Your task to perform on an android device: Open settings Image 0: 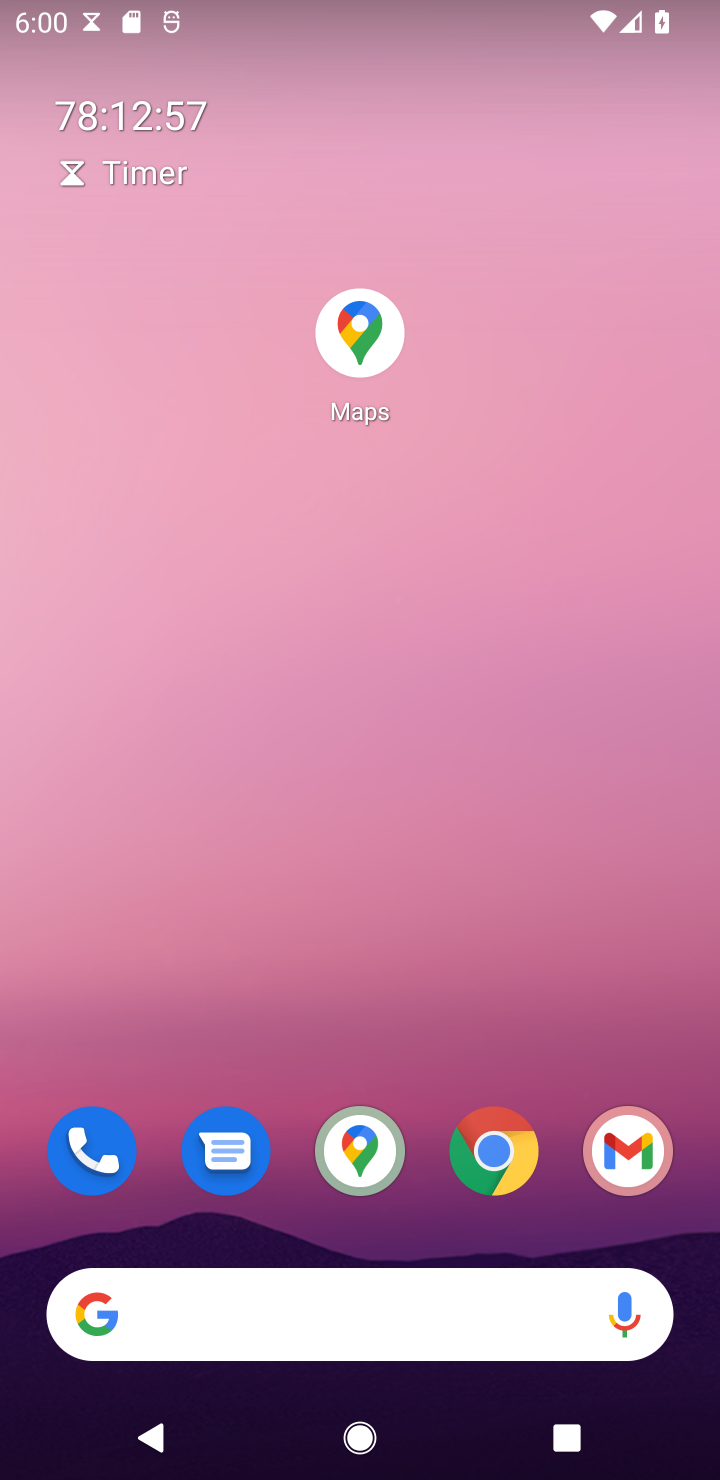
Step 0: drag from (315, 1202) to (373, 332)
Your task to perform on an android device: Open settings Image 1: 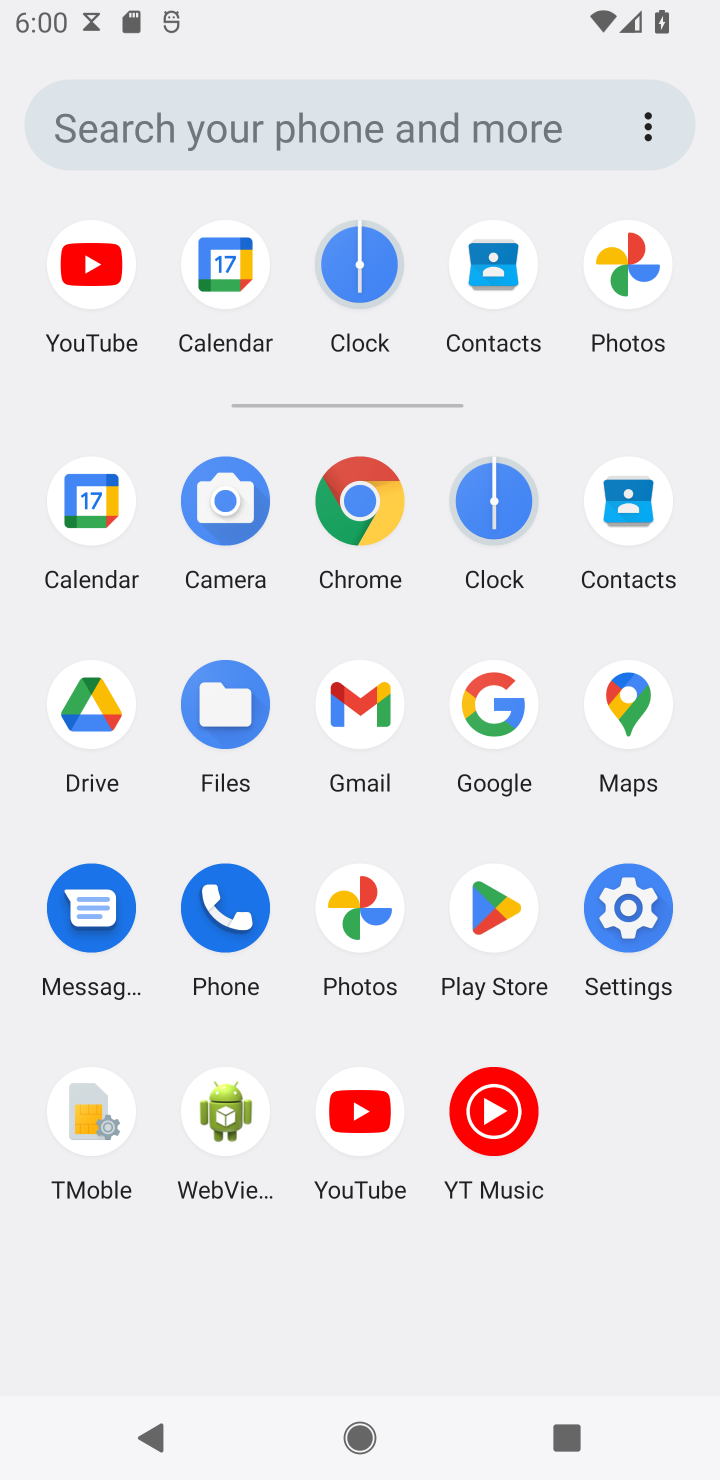
Step 1: click (615, 890)
Your task to perform on an android device: Open settings Image 2: 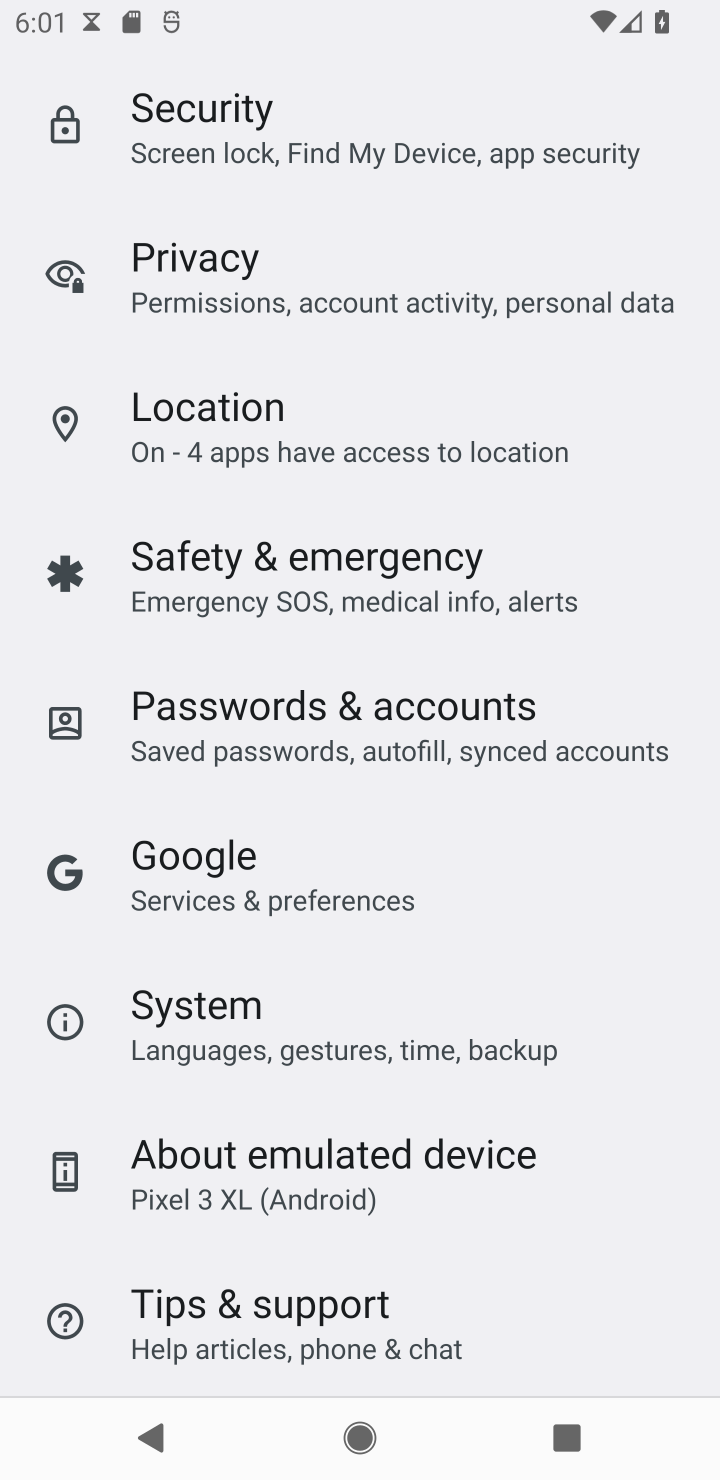
Step 2: task complete